Your task to perform on an android device: Search for seafood restaurants on Google Maps Image 0: 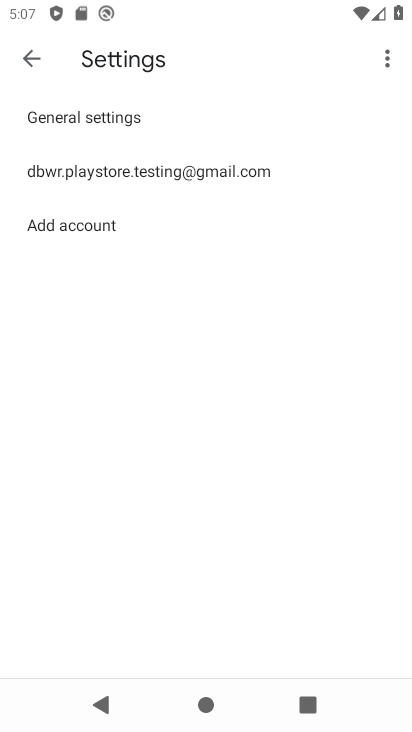
Step 0: press home button
Your task to perform on an android device: Search for seafood restaurants on Google Maps Image 1: 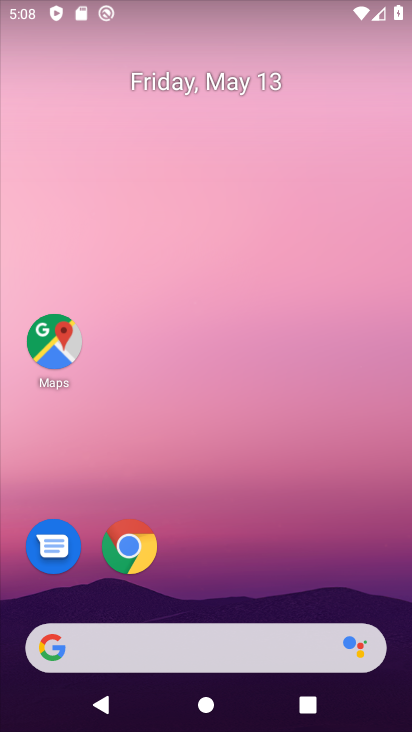
Step 1: click (60, 343)
Your task to perform on an android device: Search for seafood restaurants on Google Maps Image 2: 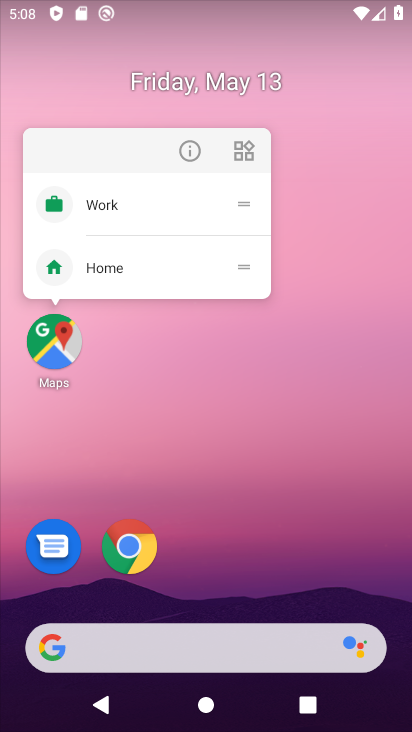
Step 2: click (59, 347)
Your task to perform on an android device: Search for seafood restaurants on Google Maps Image 3: 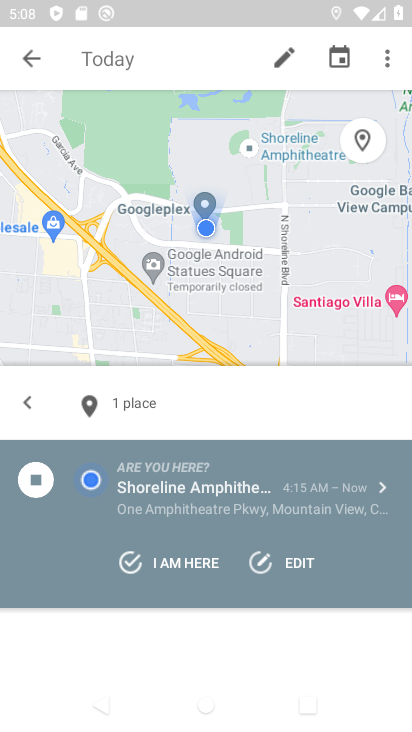
Step 3: click (34, 63)
Your task to perform on an android device: Search for seafood restaurants on Google Maps Image 4: 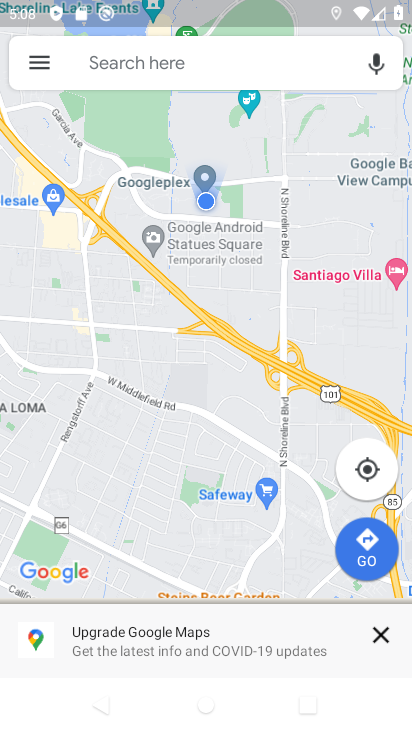
Step 4: click (163, 66)
Your task to perform on an android device: Search for seafood restaurants on Google Maps Image 5: 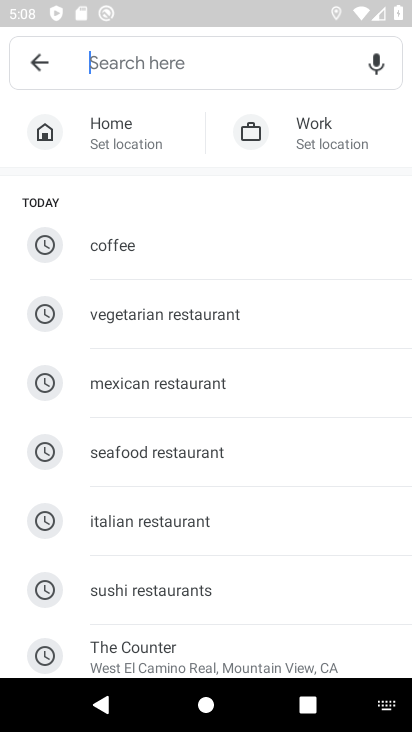
Step 5: type "seafood restaurants"
Your task to perform on an android device: Search for seafood restaurants on Google Maps Image 6: 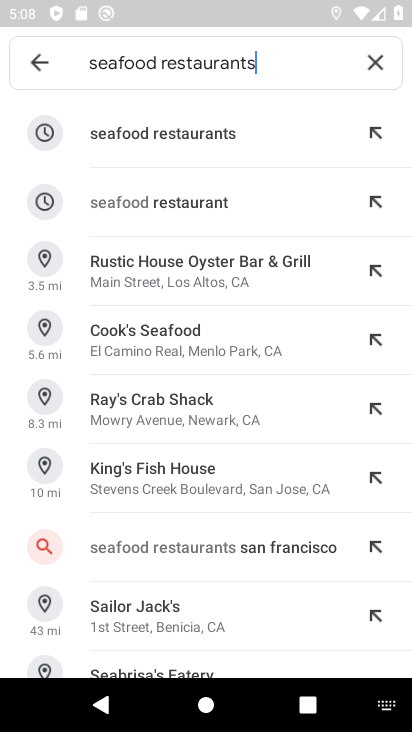
Step 6: click (161, 148)
Your task to perform on an android device: Search for seafood restaurants on Google Maps Image 7: 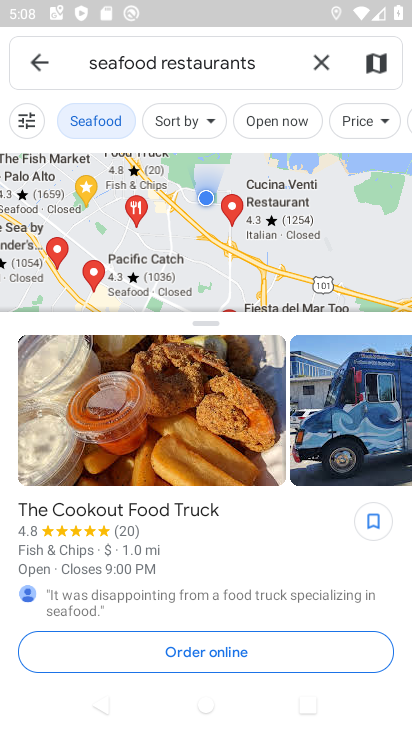
Step 7: task complete